Your task to perform on an android device: Go to battery settings Image 0: 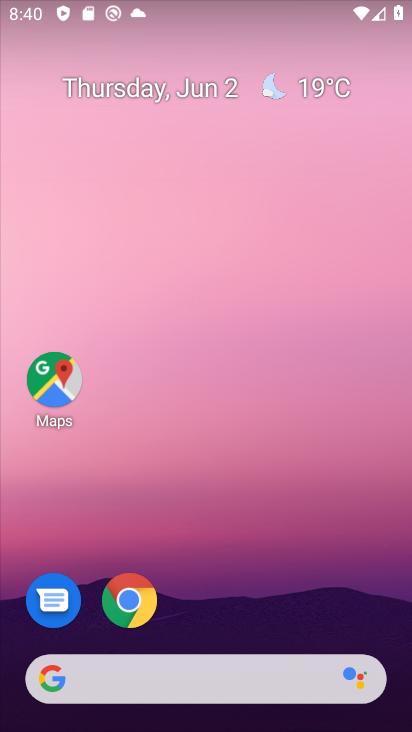
Step 0: drag from (220, 549) to (196, 266)
Your task to perform on an android device: Go to battery settings Image 1: 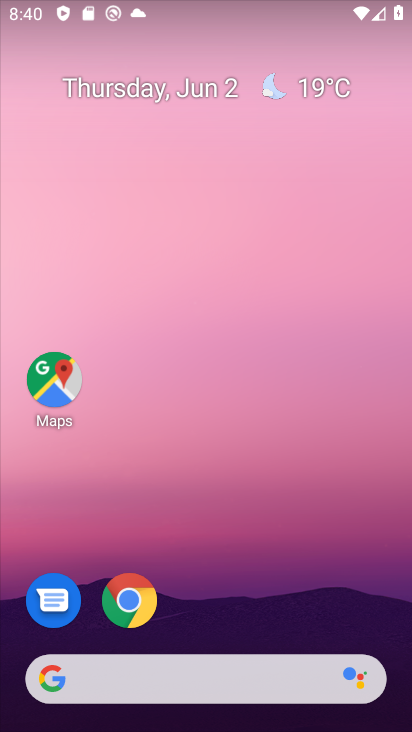
Step 1: drag from (202, 630) to (193, 163)
Your task to perform on an android device: Go to battery settings Image 2: 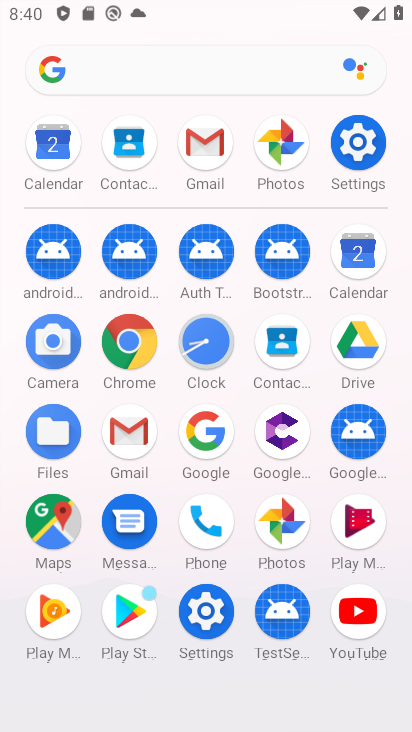
Step 2: click (363, 147)
Your task to perform on an android device: Go to battery settings Image 3: 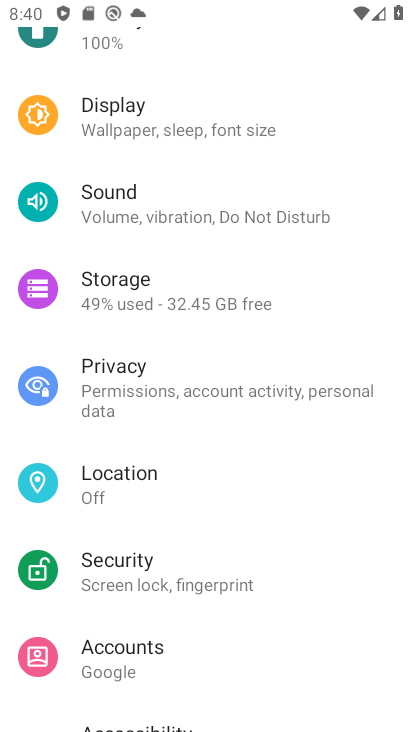
Step 3: drag from (197, 268) to (204, 545)
Your task to perform on an android device: Go to battery settings Image 4: 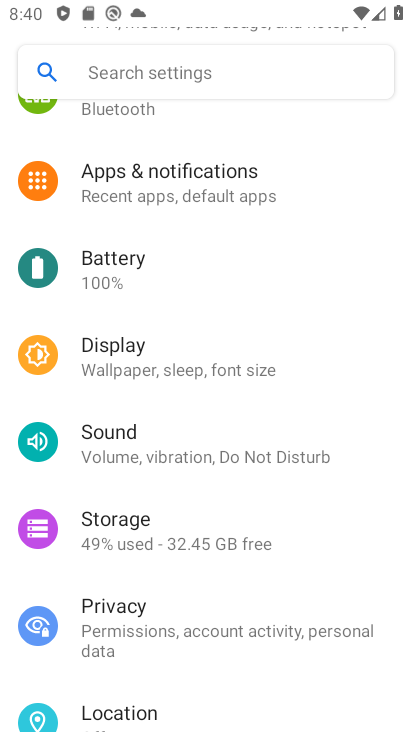
Step 4: click (156, 279)
Your task to perform on an android device: Go to battery settings Image 5: 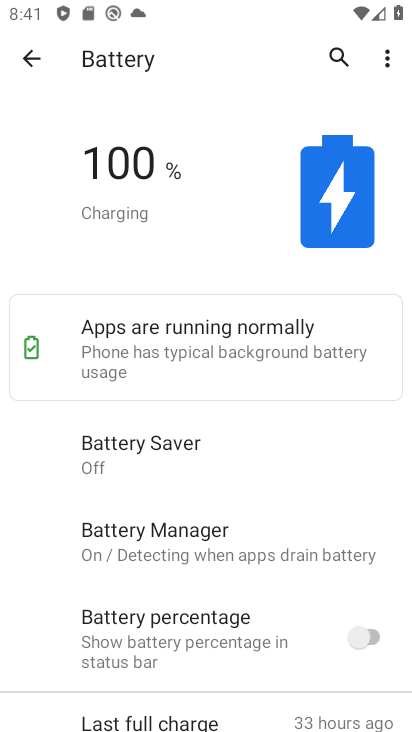
Step 5: task complete